Your task to perform on an android device: remove spam from my inbox in the gmail app Image 0: 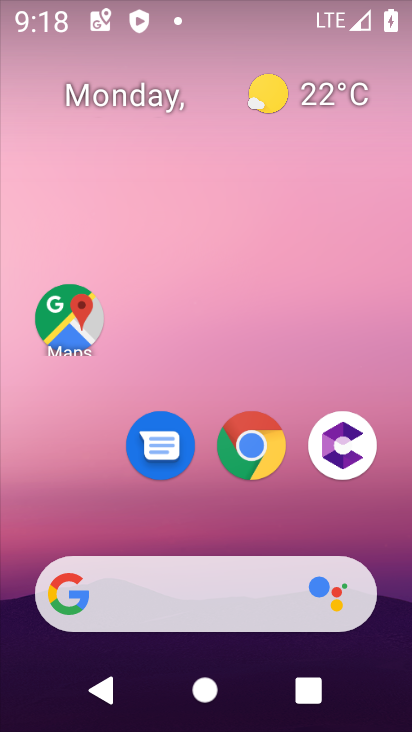
Step 0: press home button
Your task to perform on an android device: remove spam from my inbox in the gmail app Image 1: 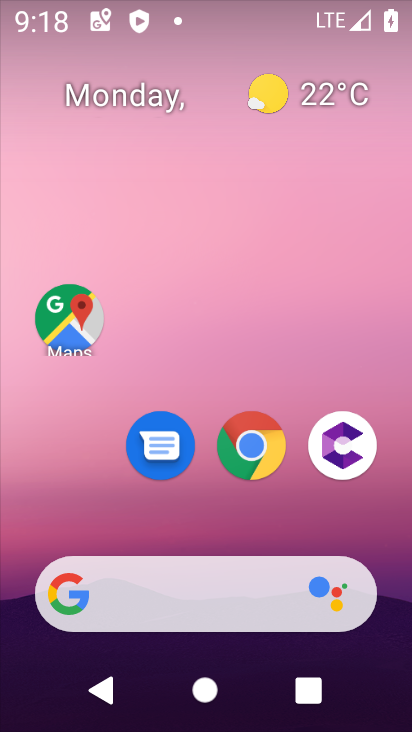
Step 1: drag from (175, 532) to (301, 2)
Your task to perform on an android device: remove spam from my inbox in the gmail app Image 2: 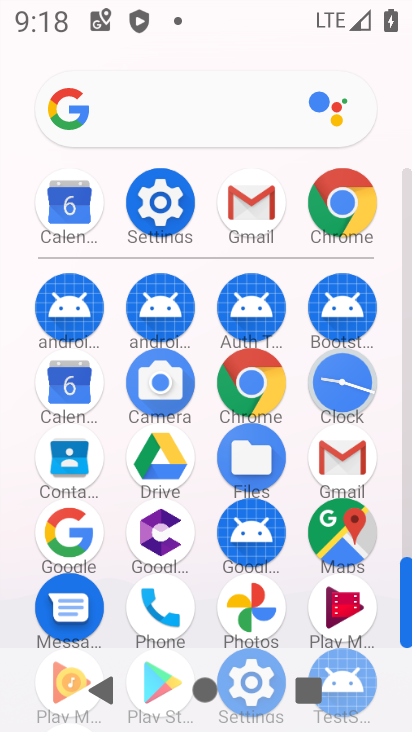
Step 2: click (244, 200)
Your task to perform on an android device: remove spam from my inbox in the gmail app Image 3: 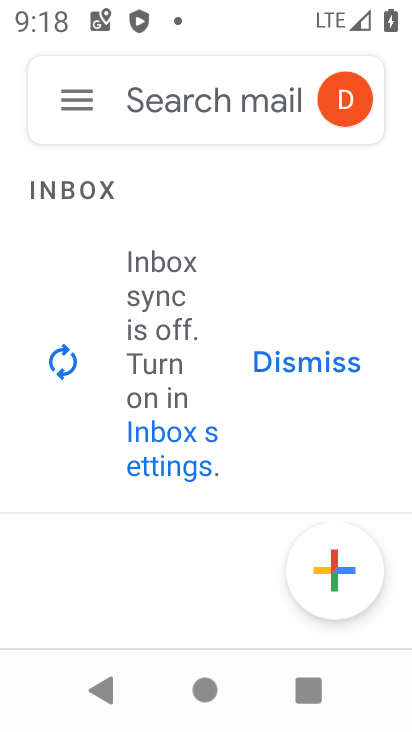
Step 3: click (76, 97)
Your task to perform on an android device: remove spam from my inbox in the gmail app Image 4: 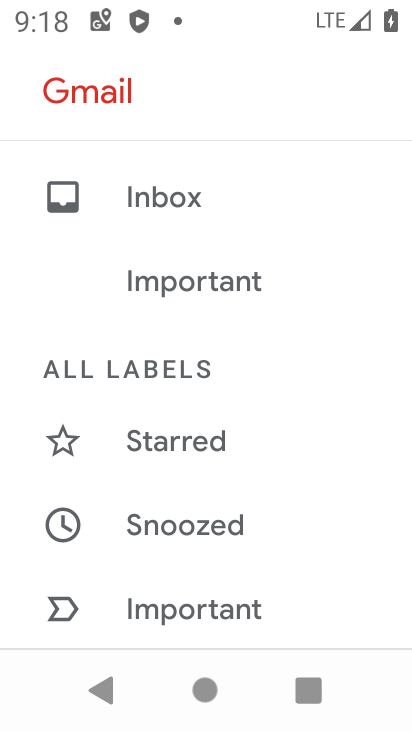
Step 4: click (180, 197)
Your task to perform on an android device: remove spam from my inbox in the gmail app Image 5: 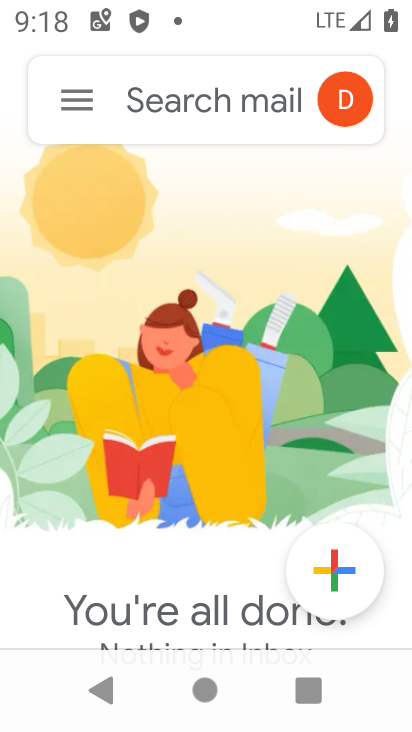
Step 5: task complete